Your task to perform on an android device: Go to Google maps Image 0: 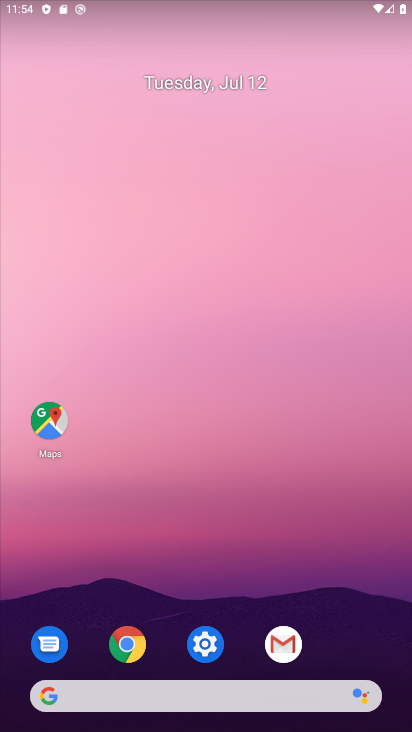
Step 0: click (59, 431)
Your task to perform on an android device: Go to Google maps Image 1: 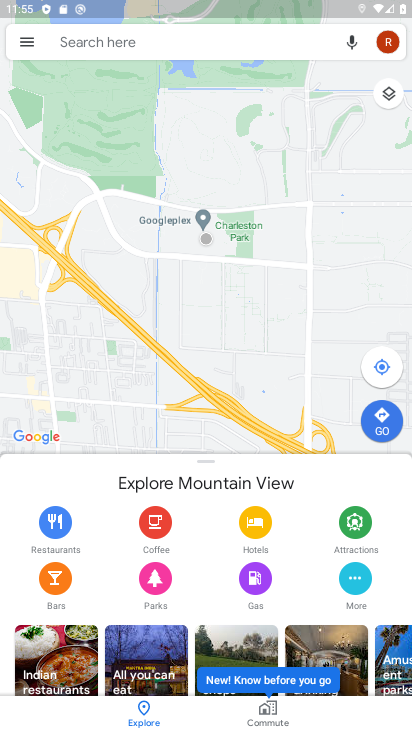
Step 1: task complete